Your task to perform on an android device: Open Youtube and go to the subscriptions tab Image 0: 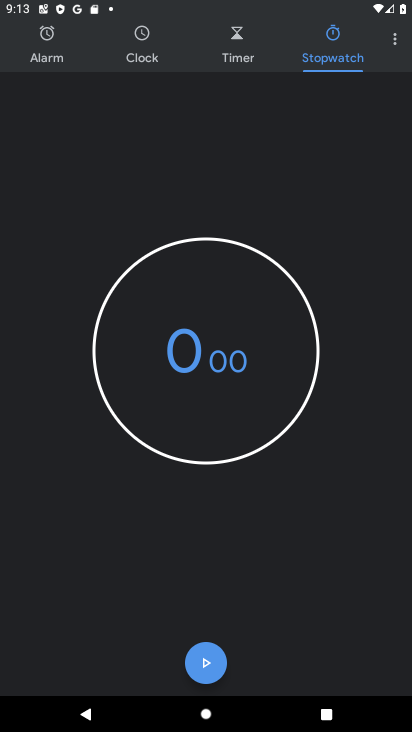
Step 0: press home button
Your task to perform on an android device: Open Youtube and go to the subscriptions tab Image 1: 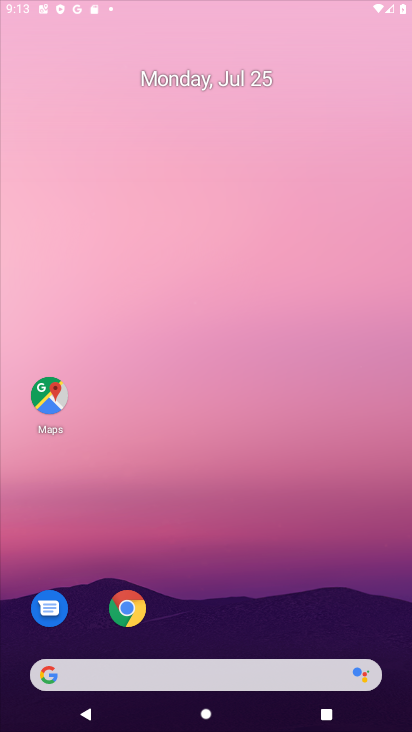
Step 1: drag from (239, 604) to (217, 308)
Your task to perform on an android device: Open Youtube and go to the subscriptions tab Image 2: 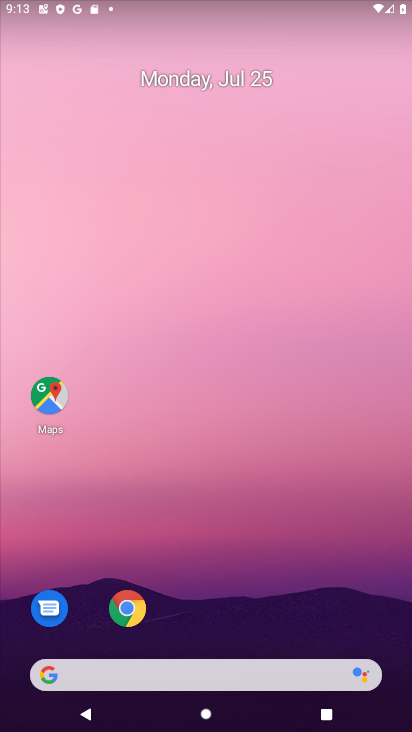
Step 2: drag from (248, 666) to (253, 202)
Your task to perform on an android device: Open Youtube and go to the subscriptions tab Image 3: 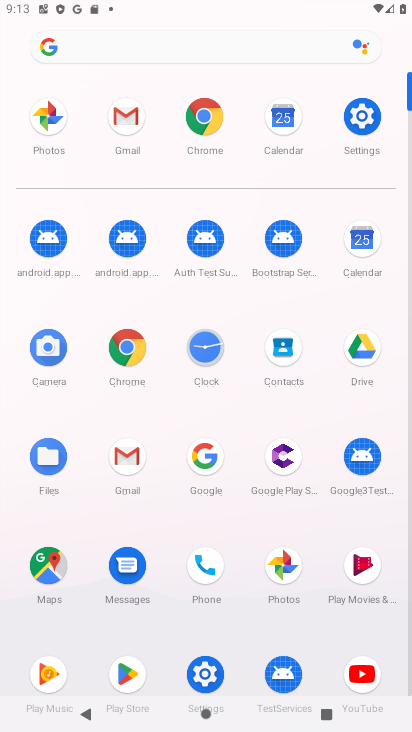
Step 3: click (375, 679)
Your task to perform on an android device: Open Youtube and go to the subscriptions tab Image 4: 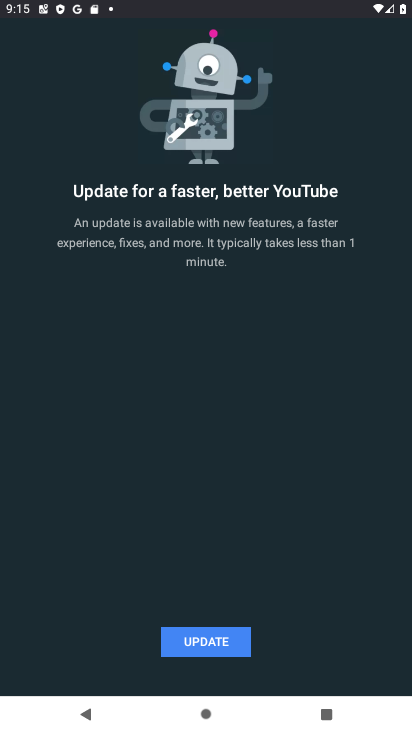
Step 4: task complete